Your task to perform on an android device: add a contact Image 0: 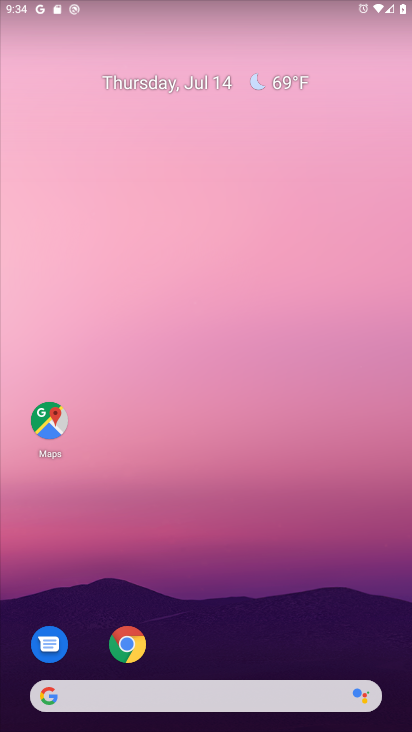
Step 0: drag from (173, 625) to (238, 10)
Your task to perform on an android device: add a contact Image 1: 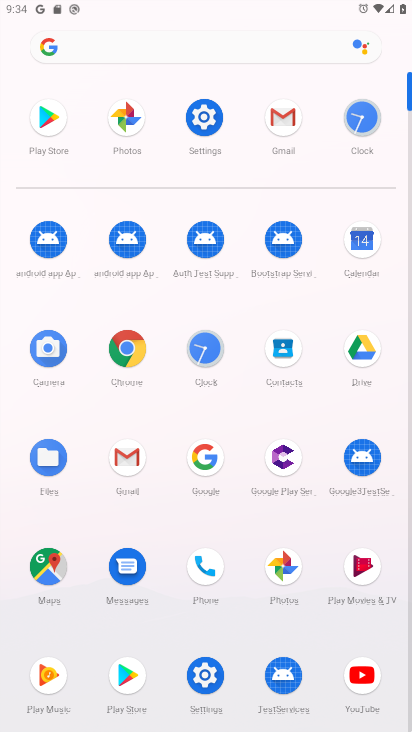
Step 1: click (280, 339)
Your task to perform on an android device: add a contact Image 2: 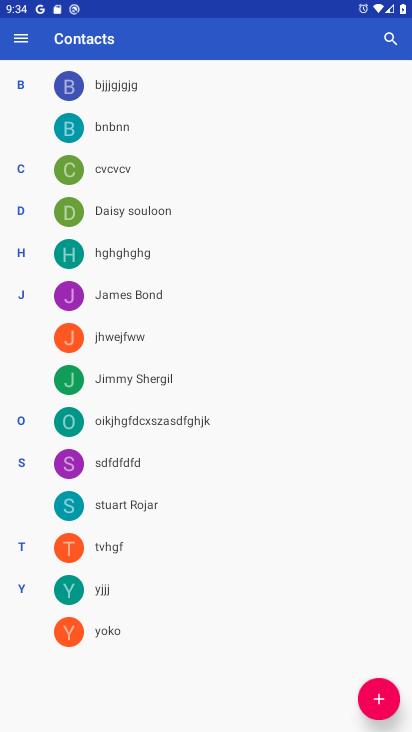
Step 2: click (381, 707)
Your task to perform on an android device: add a contact Image 3: 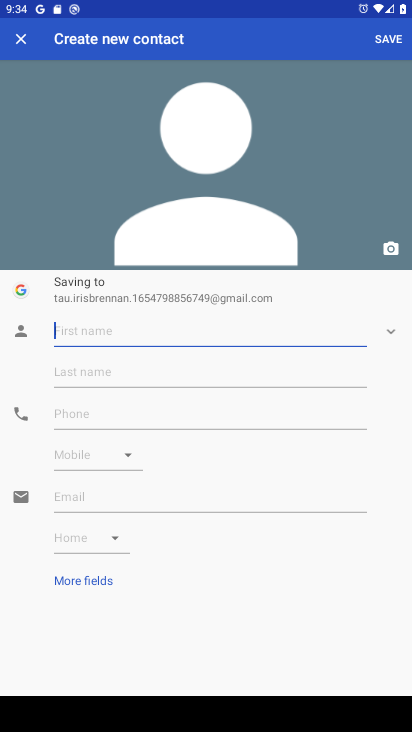
Step 3: type "oijhgfvcx"
Your task to perform on an android device: add a contact Image 4: 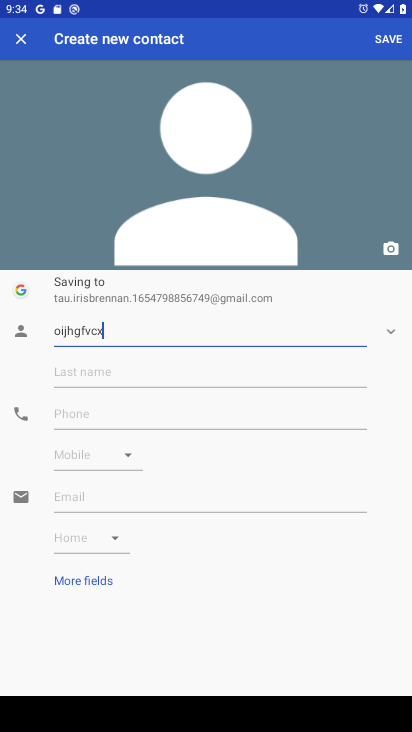
Step 4: click (178, 402)
Your task to perform on an android device: add a contact Image 5: 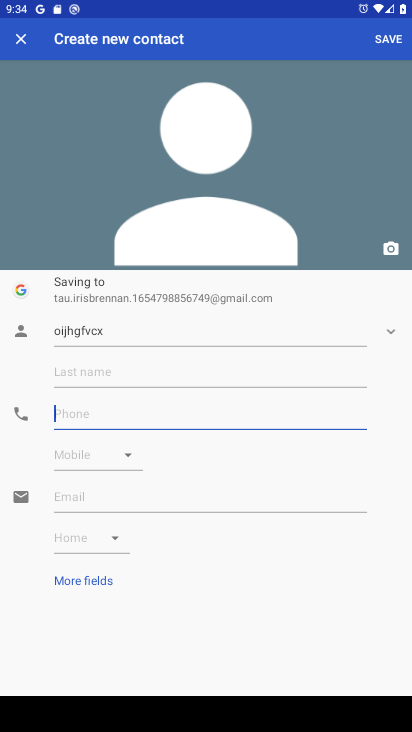
Step 5: type "2345678908765r"
Your task to perform on an android device: add a contact Image 6: 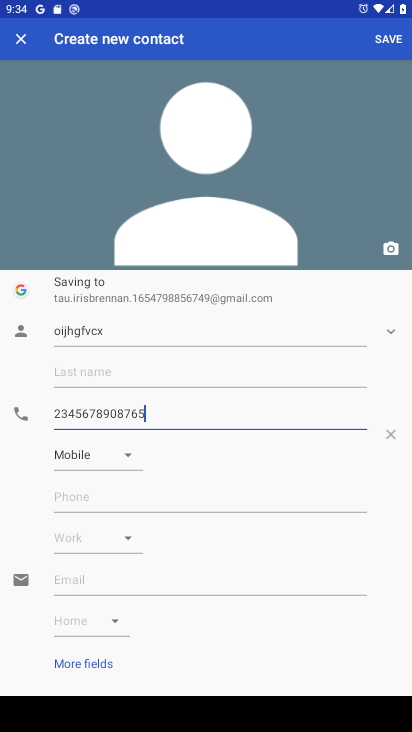
Step 6: click (397, 47)
Your task to perform on an android device: add a contact Image 7: 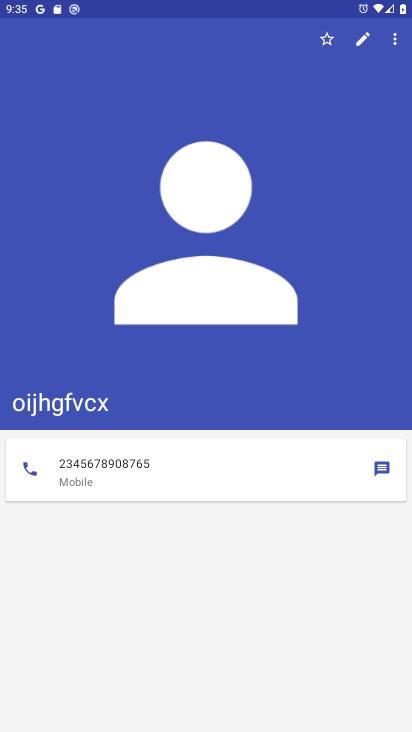
Step 7: task complete